Your task to perform on an android device: change the clock style Image 0: 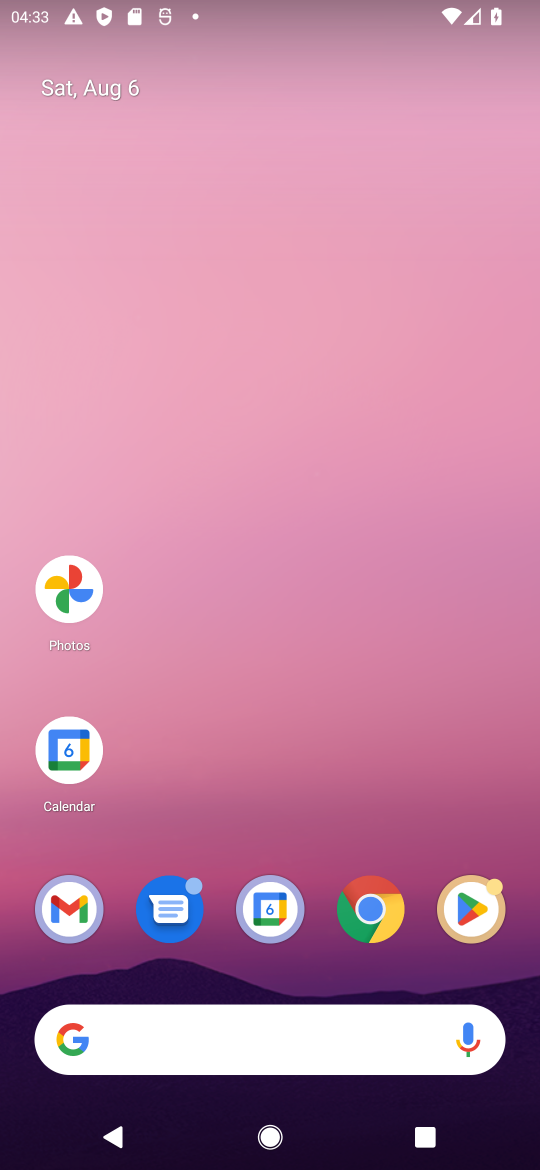
Step 0: drag from (384, 789) to (327, 4)
Your task to perform on an android device: change the clock style Image 1: 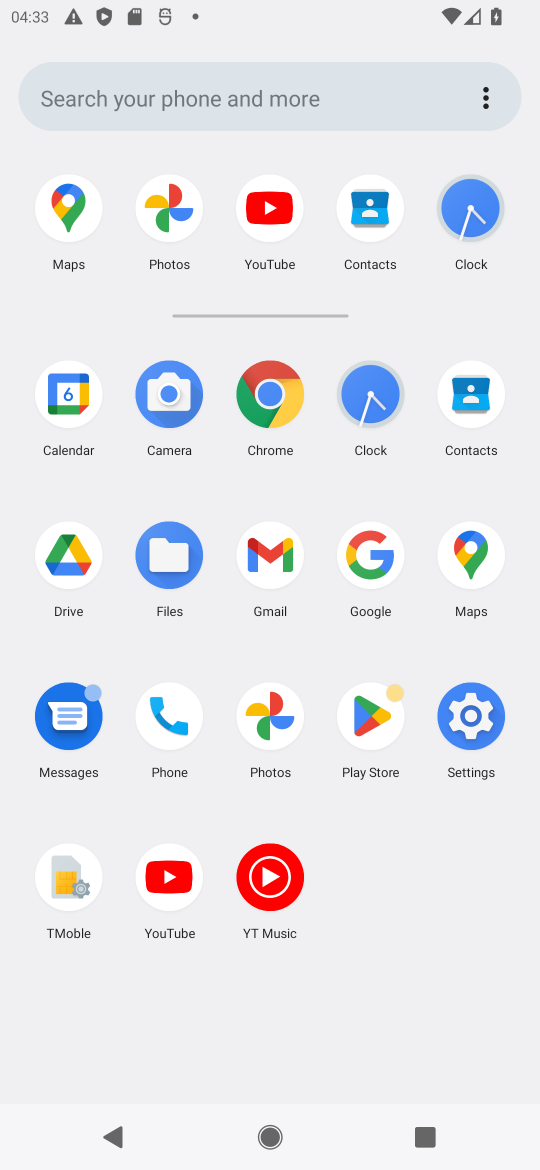
Step 1: click (470, 202)
Your task to perform on an android device: change the clock style Image 2: 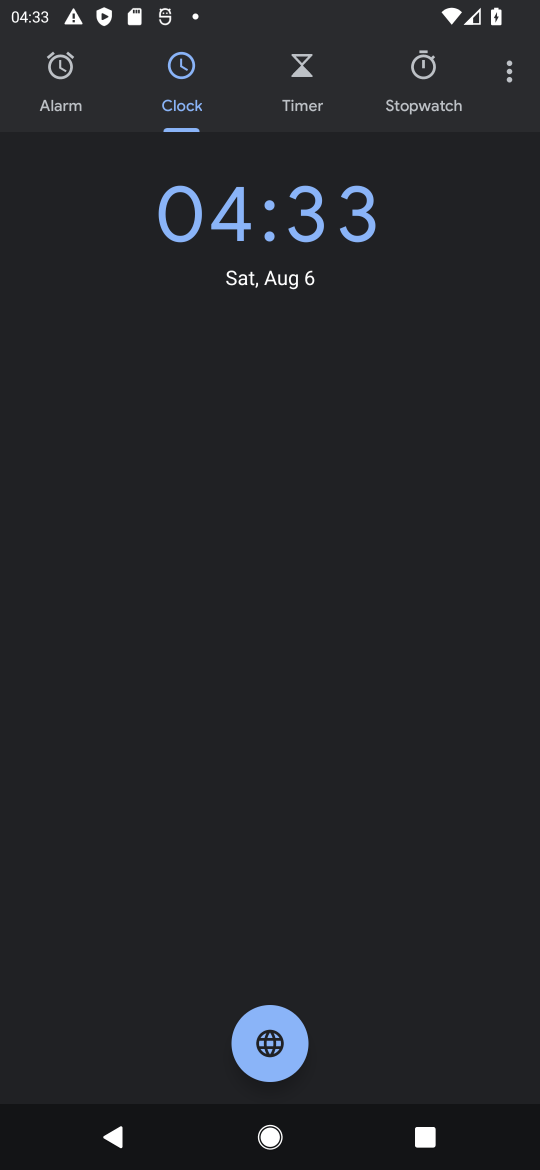
Step 2: click (512, 66)
Your task to perform on an android device: change the clock style Image 3: 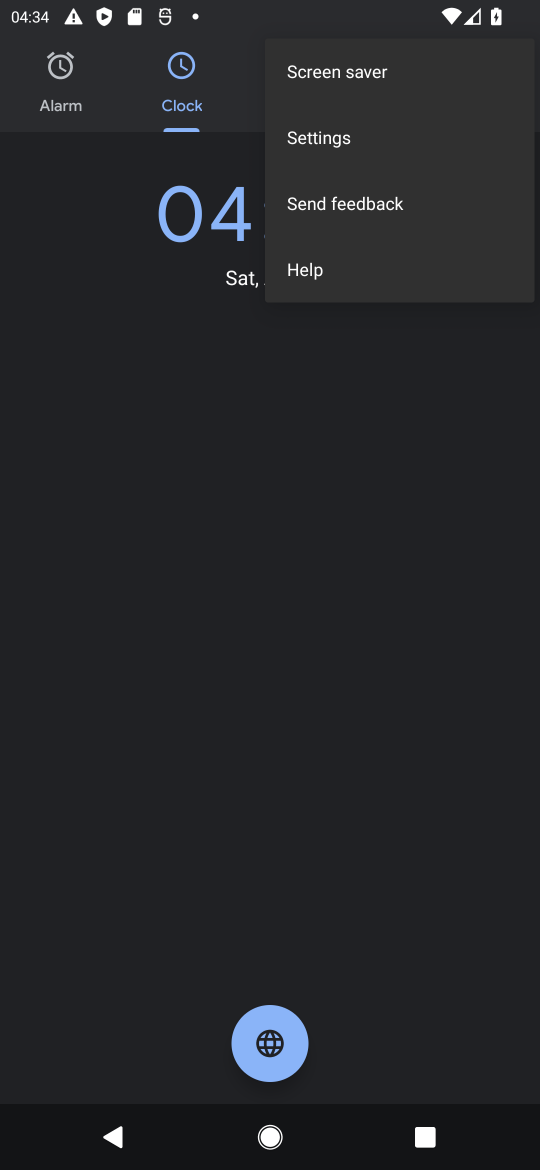
Step 3: click (333, 142)
Your task to perform on an android device: change the clock style Image 4: 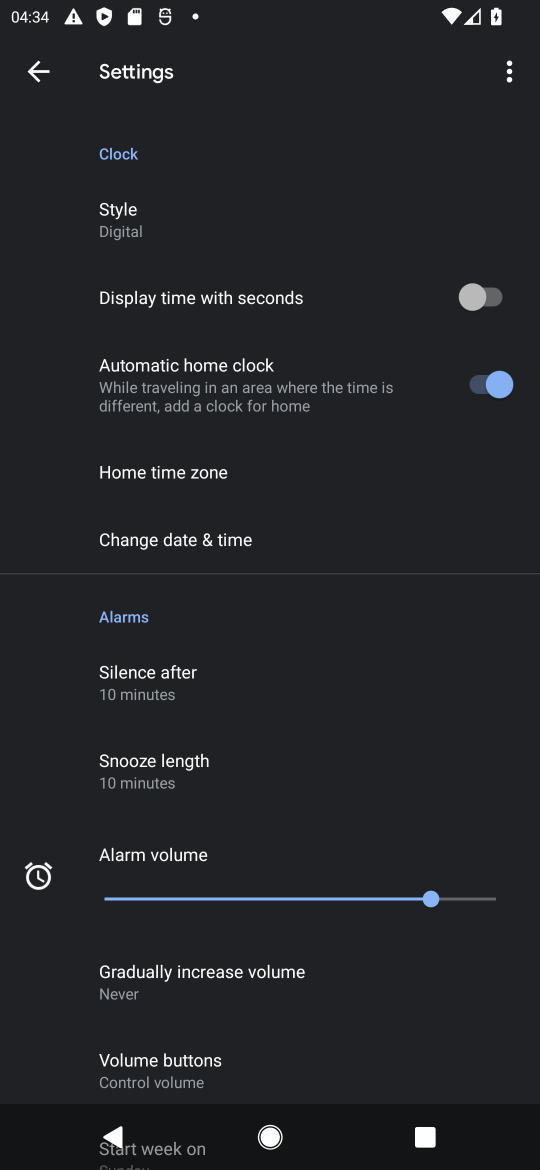
Step 4: click (120, 204)
Your task to perform on an android device: change the clock style Image 5: 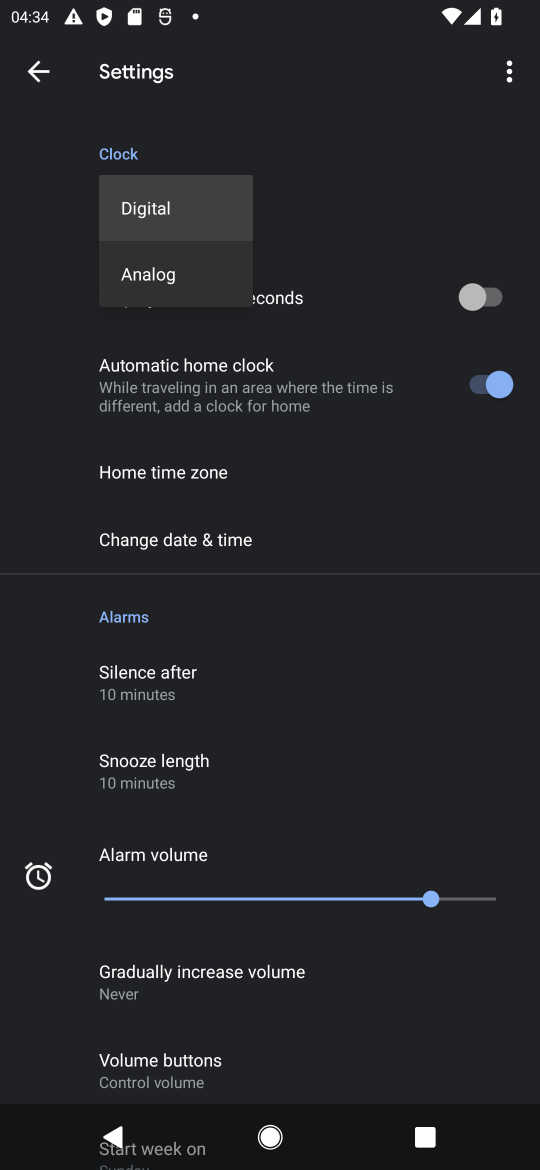
Step 5: click (145, 273)
Your task to perform on an android device: change the clock style Image 6: 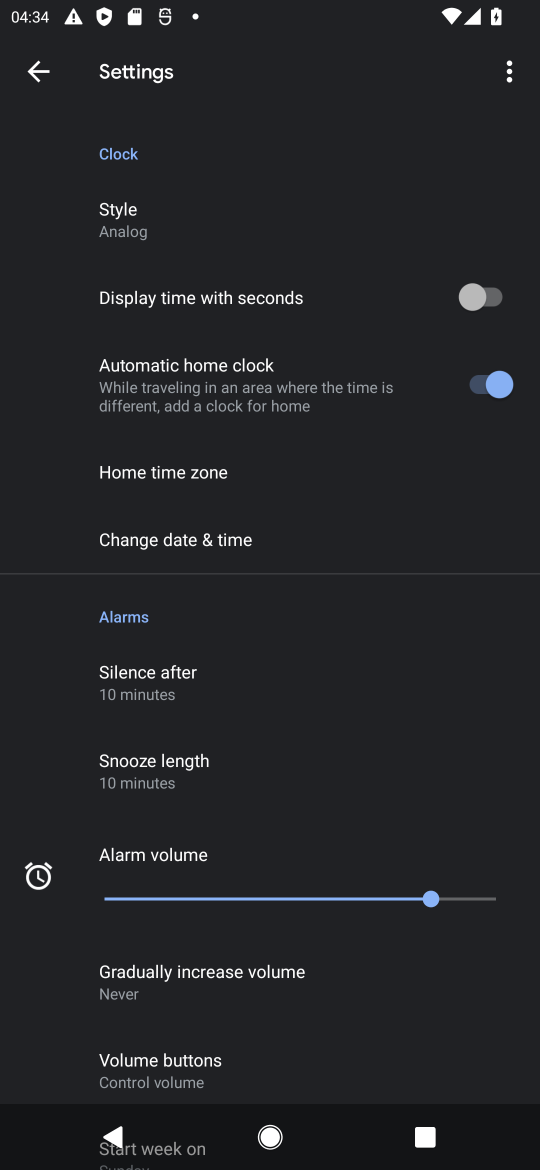
Step 6: task complete